Your task to perform on an android device: change the clock display to show seconds Image 0: 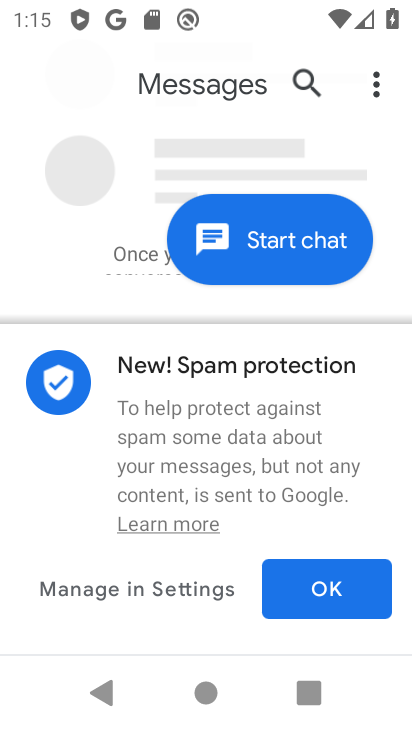
Step 0: press home button
Your task to perform on an android device: change the clock display to show seconds Image 1: 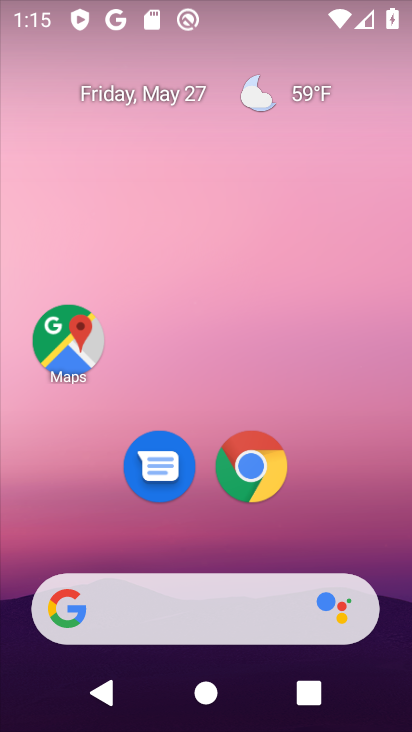
Step 1: drag from (81, 562) to (212, 106)
Your task to perform on an android device: change the clock display to show seconds Image 2: 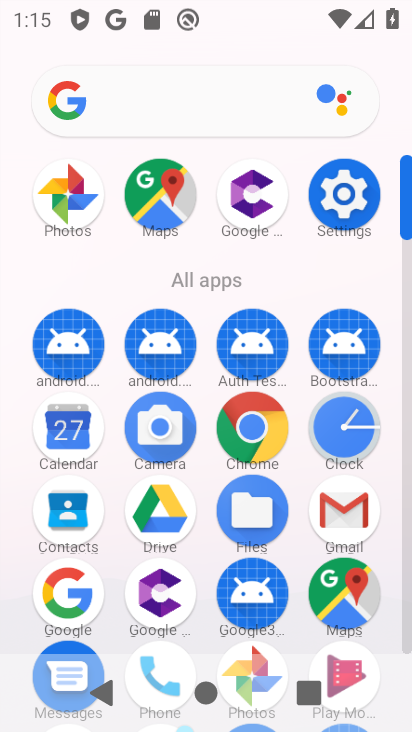
Step 2: click (331, 459)
Your task to perform on an android device: change the clock display to show seconds Image 3: 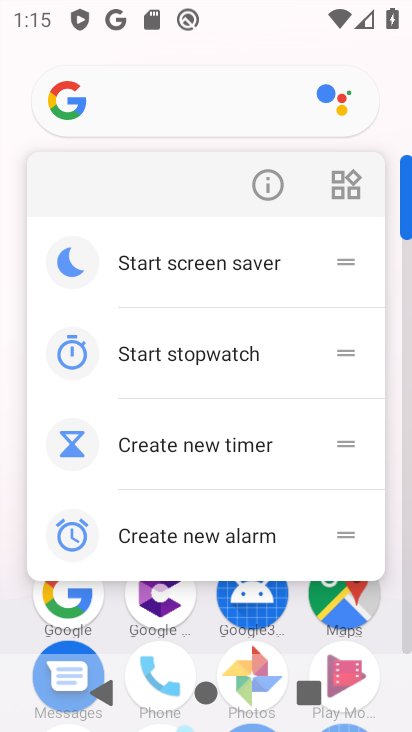
Step 3: press back button
Your task to perform on an android device: change the clock display to show seconds Image 4: 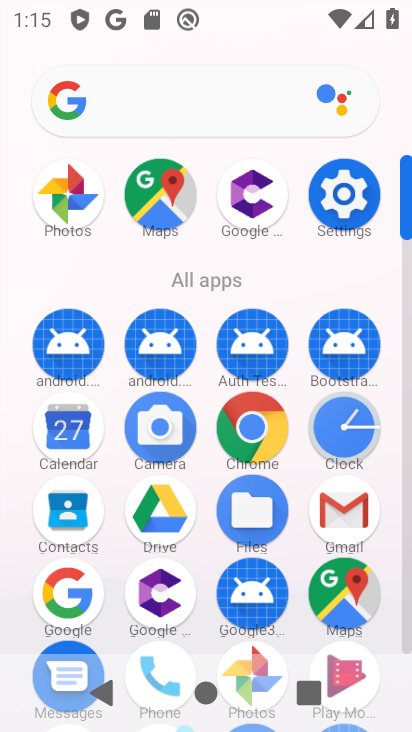
Step 4: click (361, 416)
Your task to perform on an android device: change the clock display to show seconds Image 5: 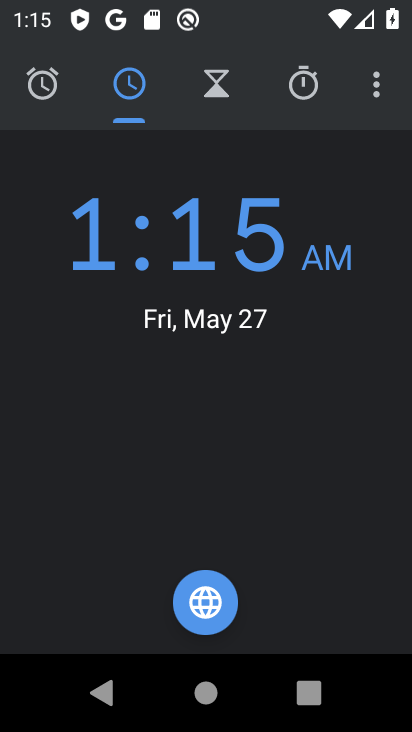
Step 5: click (370, 89)
Your task to perform on an android device: change the clock display to show seconds Image 6: 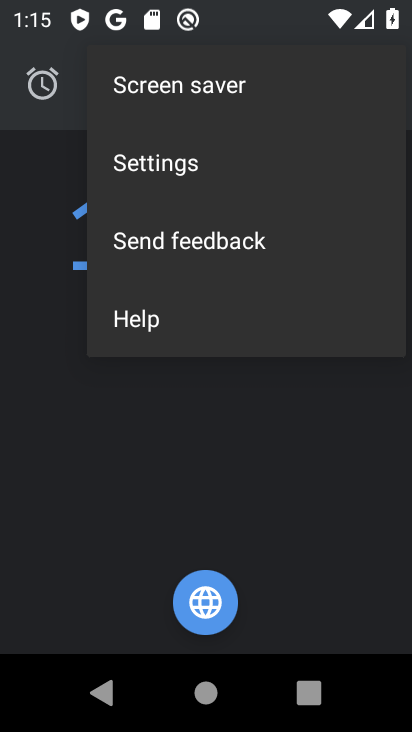
Step 6: click (271, 173)
Your task to perform on an android device: change the clock display to show seconds Image 7: 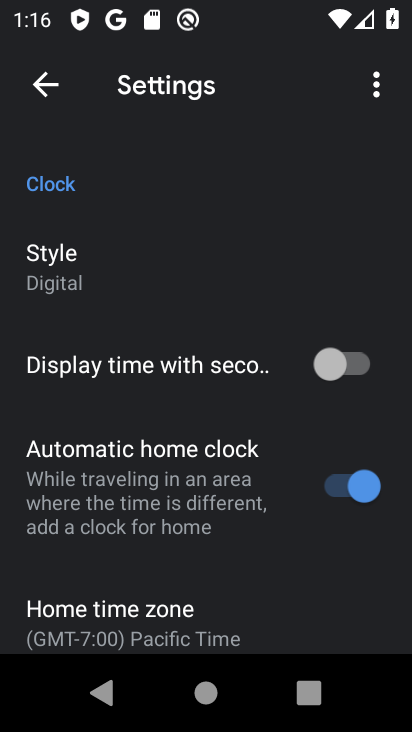
Step 7: click (371, 366)
Your task to perform on an android device: change the clock display to show seconds Image 8: 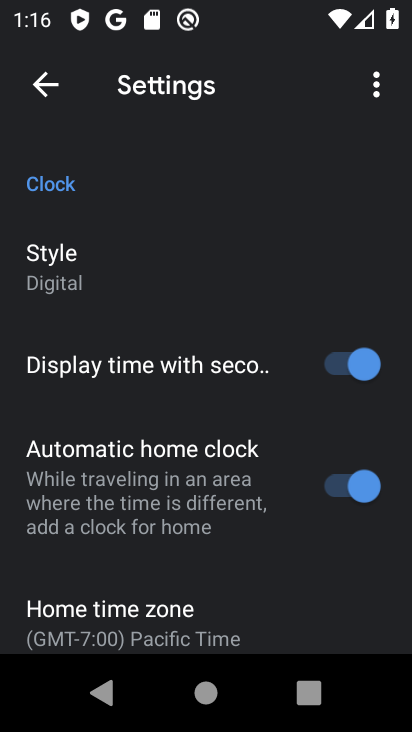
Step 8: task complete